Your task to perform on an android device: Open settings on Google Maps Image 0: 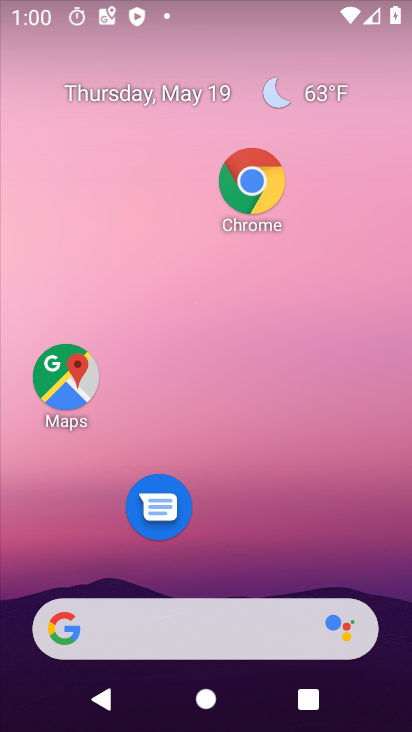
Step 0: drag from (236, 291) to (261, 37)
Your task to perform on an android device: Open settings on Google Maps Image 1: 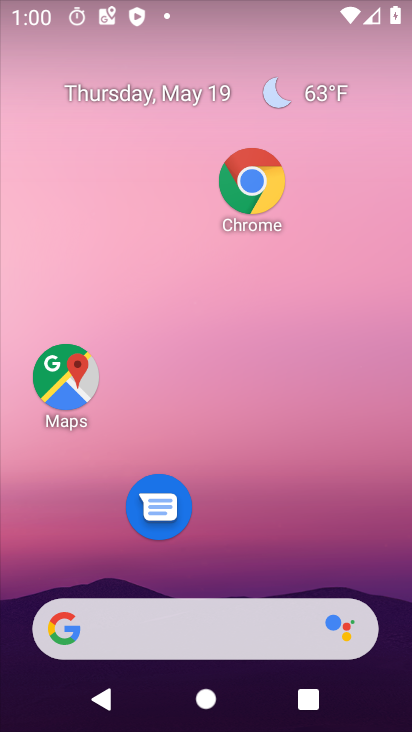
Step 1: drag from (203, 545) to (169, 74)
Your task to perform on an android device: Open settings on Google Maps Image 2: 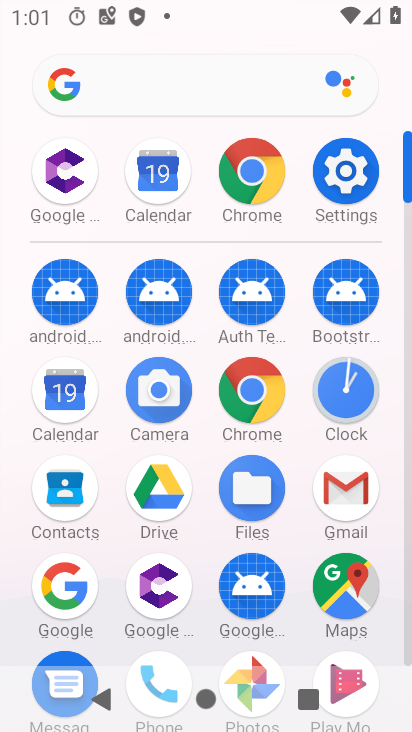
Step 2: click (351, 594)
Your task to perform on an android device: Open settings on Google Maps Image 3: 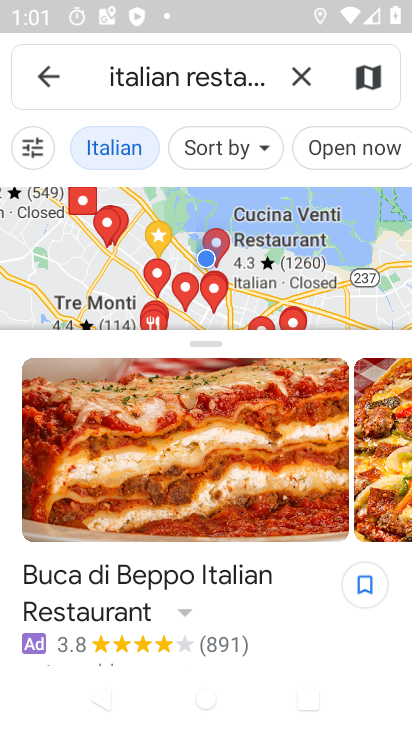
Step 3: task complete